Your task to perform on an android device: turn off data saver in the chrome app Image 0: 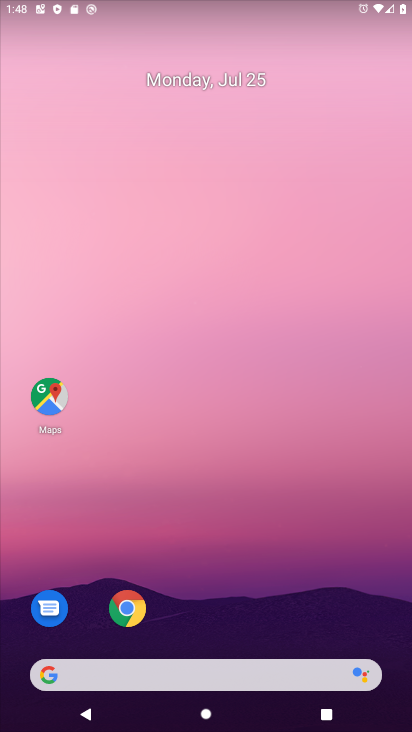
Step 0: drag from (298, 591) to (294, 118)
Your task to perform on an android device: turn off data saver in the chrome app Image 1: 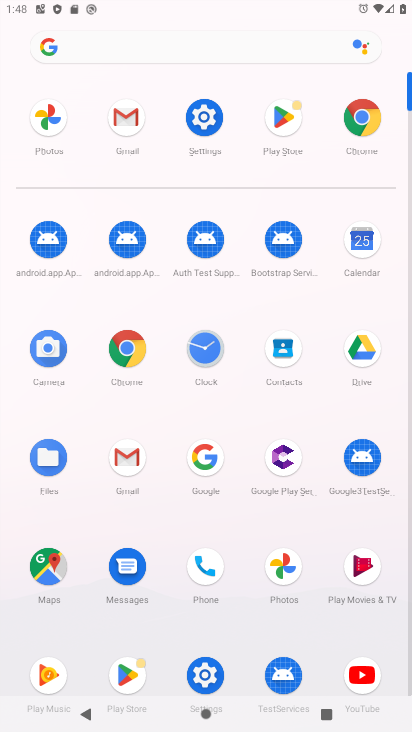
Step 1: click (126, 351)
Your task to perform on an android device: turn off data saver in the chrome app Image 2: 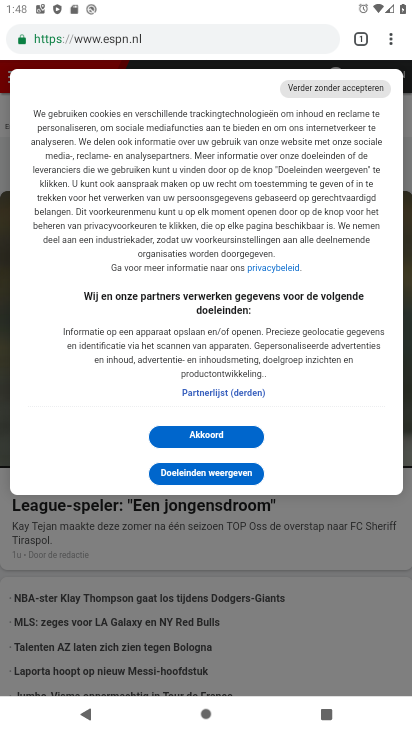
Step 2: drag from (391, 32) to (261, 475)
Your task to perform on an android device: turn off data saver in the chrome app Image 3: 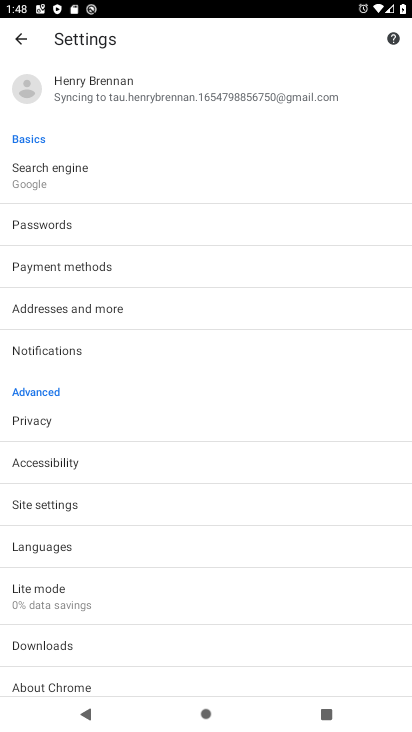
Step 3: click (48, 596)
Your task to perform on an android device: turn off data saver in the chrome app Image 4: 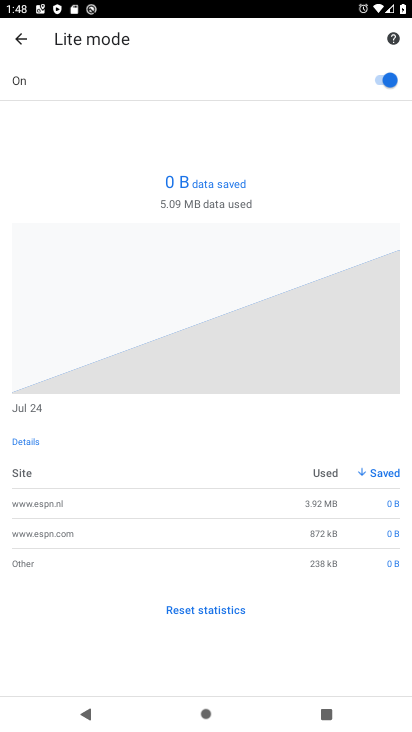
Step 4: click (374, 72)
Your task to perform on an android device: turn off data saver in the chrome app Image 5: 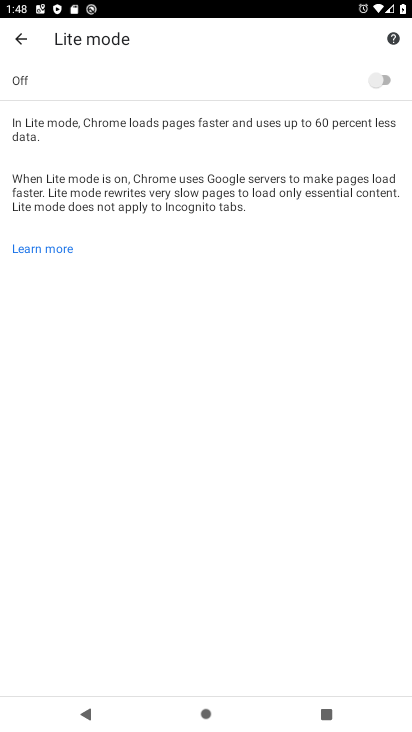
Step 5: task complete